Your task to perform on an android device: toggle translation in the chrome app Image 0: 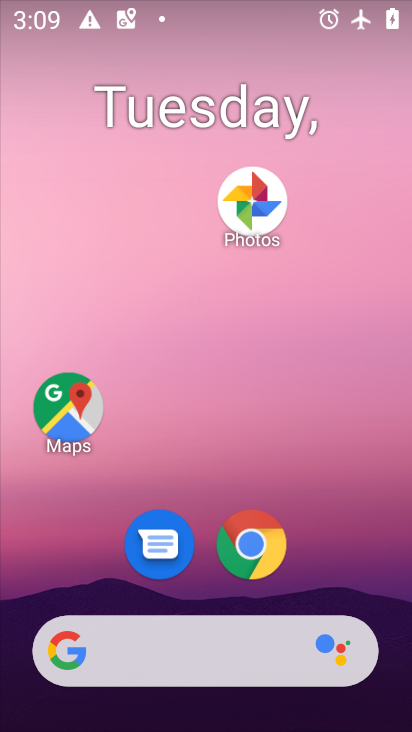
Step 0: drag from (337, 519) to (373, 25)
Your task to perform on an android device: toggle translation in the chrome app Image 1: 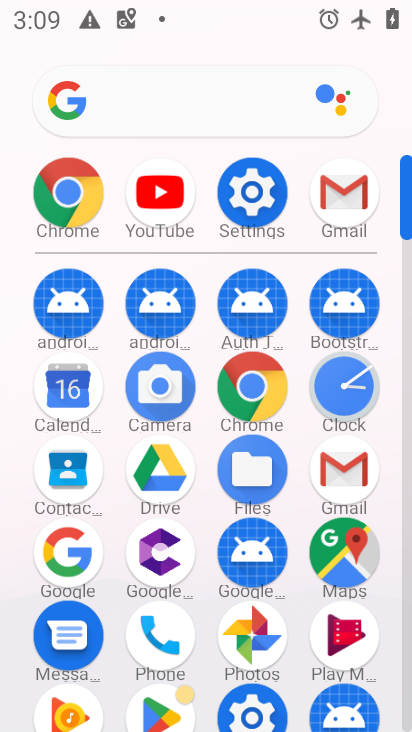
Step 1: click (248, 381)
Your task to perform on an android device: toggle translation in the chrome app Image 2: 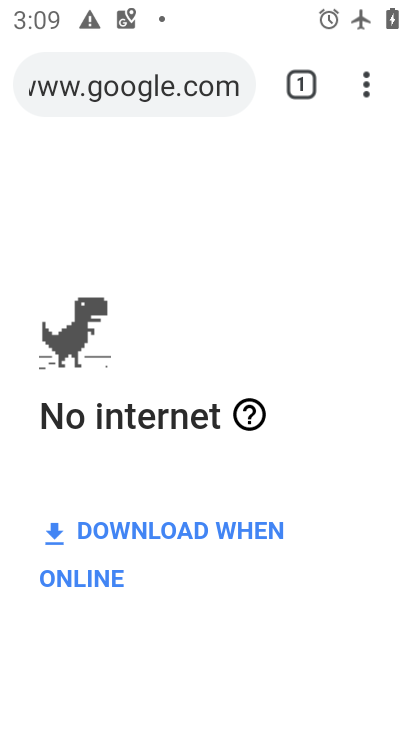
Step 2: drag from (379, 70) to (168, 588)
Your task to perform on an android device: toggle translation in the chrome app Image 3: 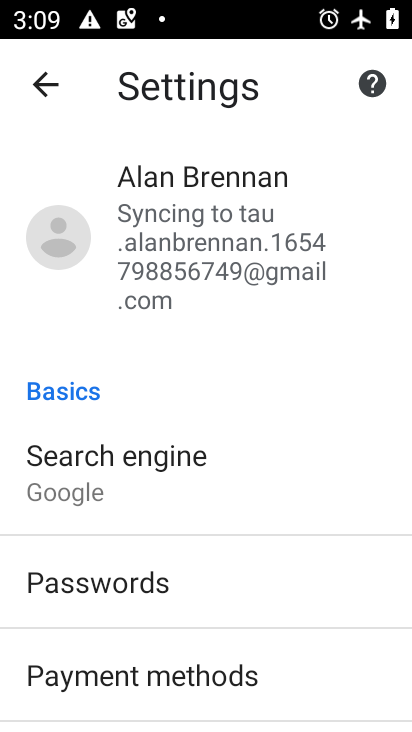
Step 3: drag from (312, 631) to (323, 232)
Your task to perform on an android device: toggle translation in the chrome app Image 4: 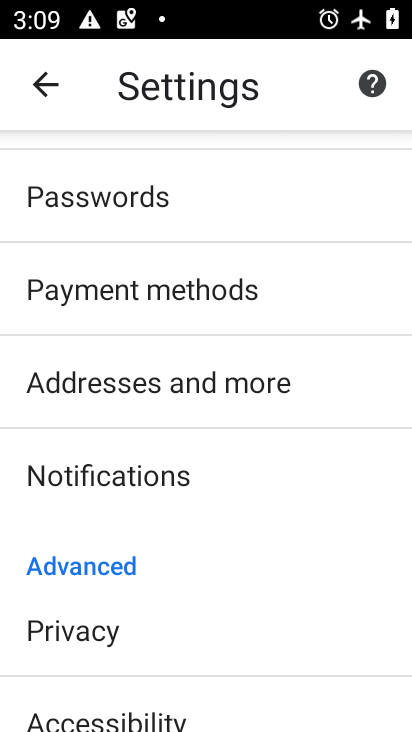
Step 4: drag from (248, 648) to (317, 253)
Your task to perform on an android device: toggle translation in the chrome app Image 5: 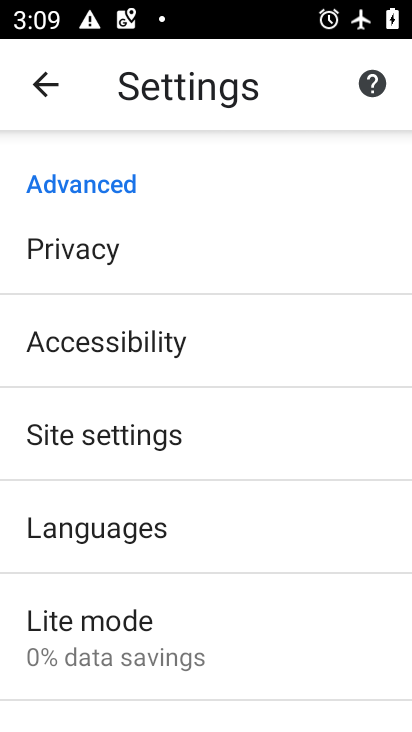
Step 5: drag from (264, 663) to (328, 355)
Your task to perform on an android device: toggle translation in the chrome app Image 6: 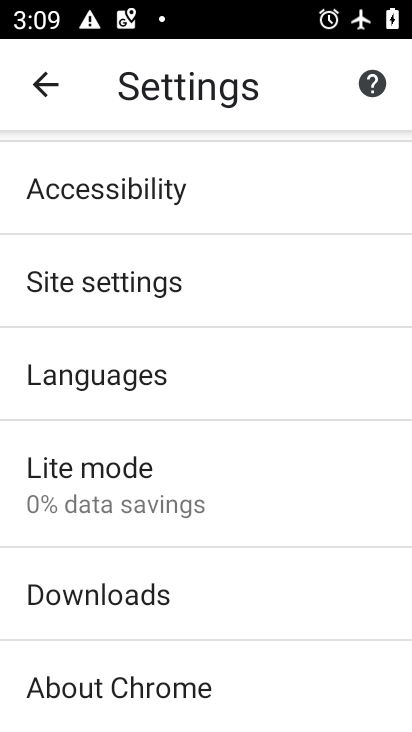
Step 6: click (151, 372)
Your task to perform on an android device: toggle translation in the chrome app Image 7: 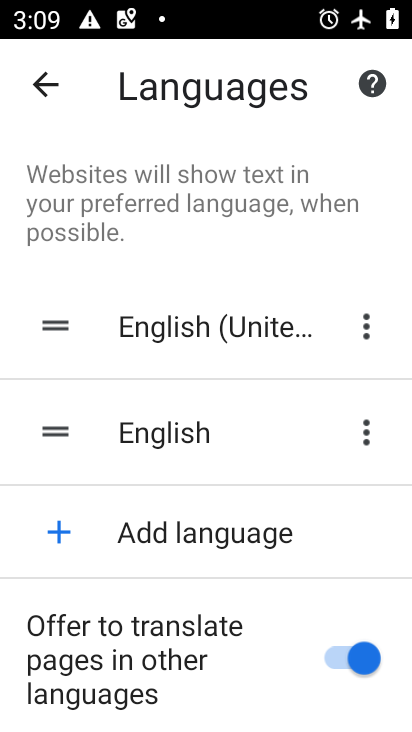
Step 7: click (352, 666)
Your task to perform on an android device: toggle translation in the chrome app Image 8: 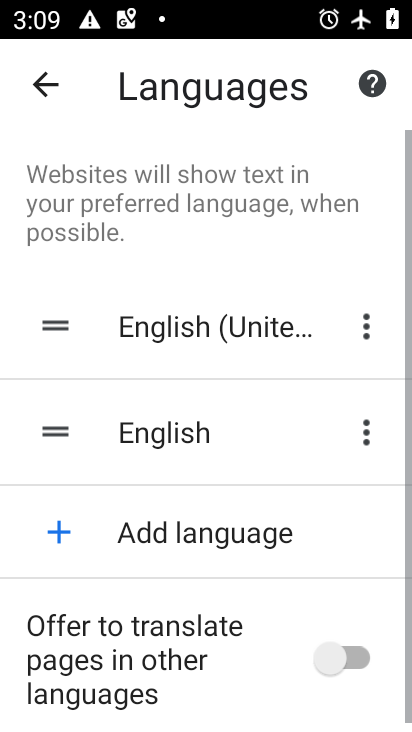
Step 8: task complete